Your task to perform on an android device: clear history in the chrome app Image 0: 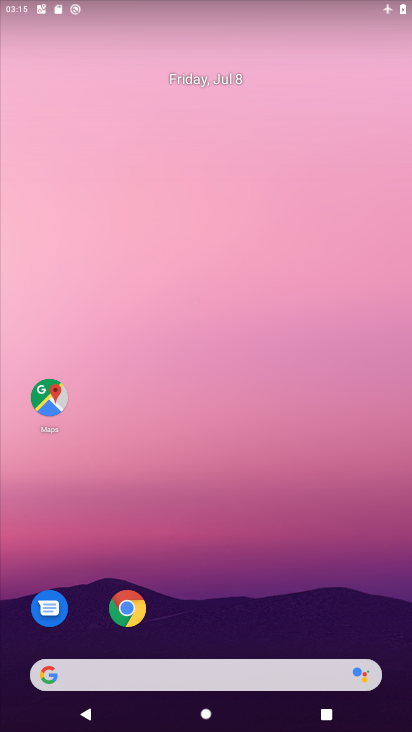
Step 0: drag from (232, 586) to (217, 339)
Your task to perform on an android device: clear history in the chrome app Image 1: 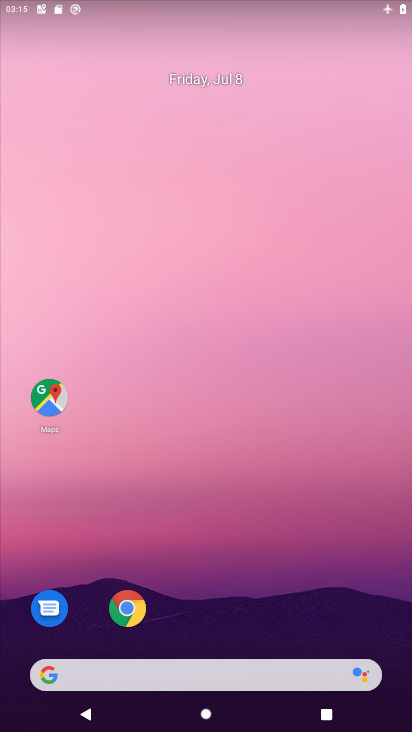
Step 1: drag from (271, 667) to (247, 430)
Your task to perform on an android device: clear history in the chrome app Image 2: 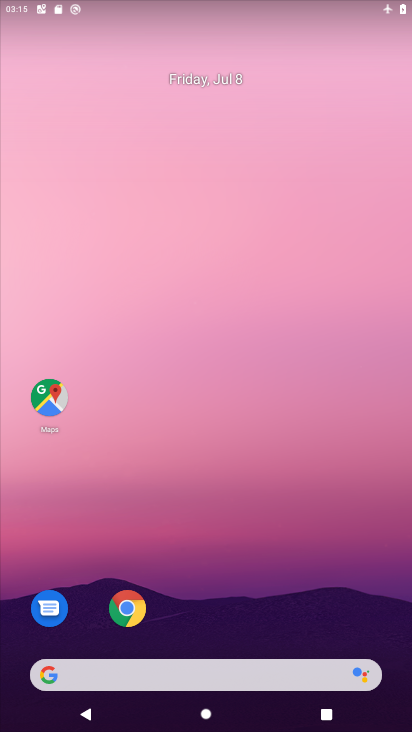
Step 2: drag from (225, 663) to (223, 402)
Your task to perform on an android device: clear history in the chrome app Image 3: 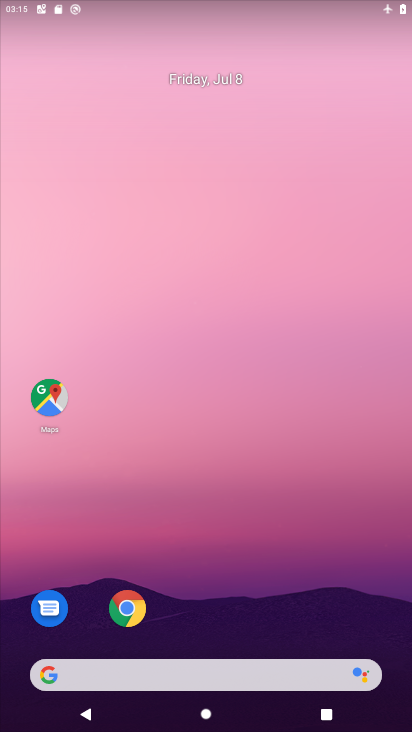
Step 3: drag from (195, 654) to (190, 255)
Your task to perform on an android device: clear history in the chrome app Image 4: 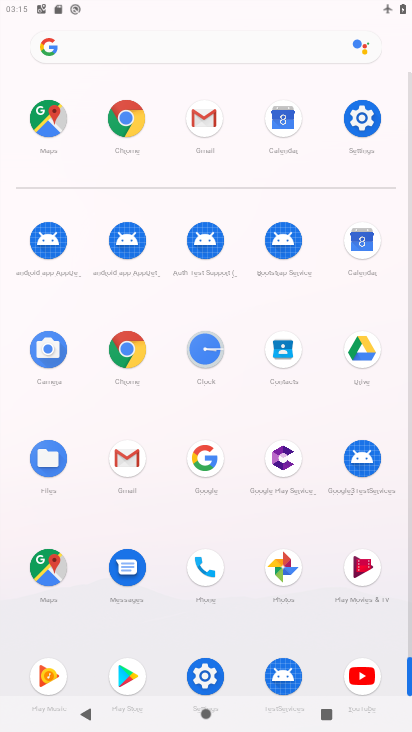
Step 4: click (118, 111)
Your task to perform on an android device: clear history in the chrome app Image 5: 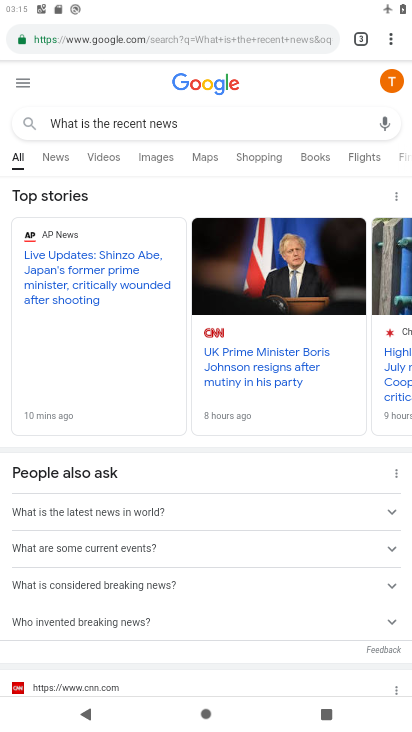
Step 5: click (392, 31)
Your task to perform on an android device: clear history in the chrome app Image 6: 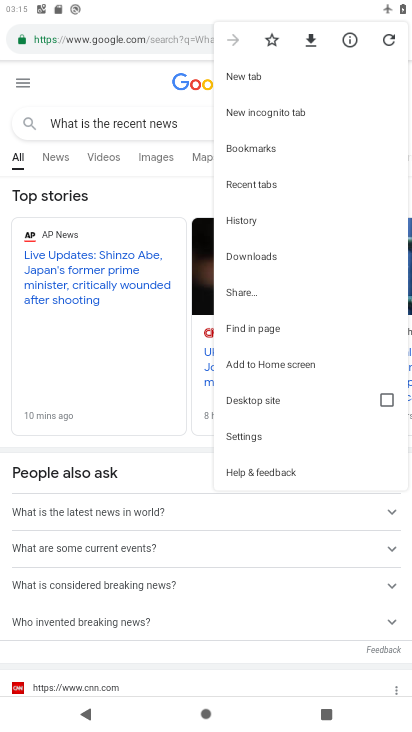
Step 6: click (255, 230)
Your task to perform on an android device: clear history in the chrome app Image 7: 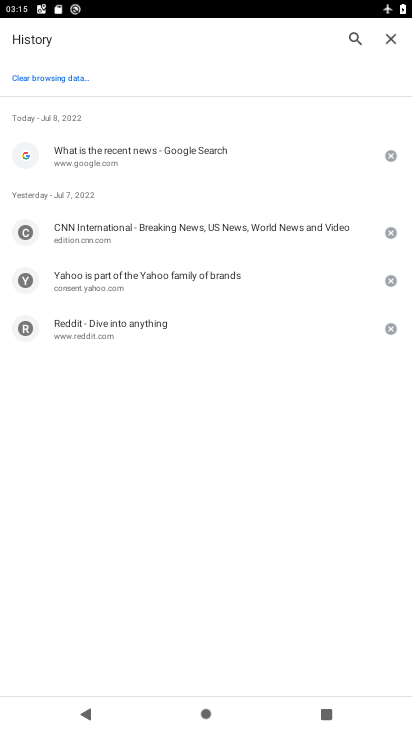
Step 7: click (44, 77)
Your task to perform on an android device: clear history in the chrome app Image 8: 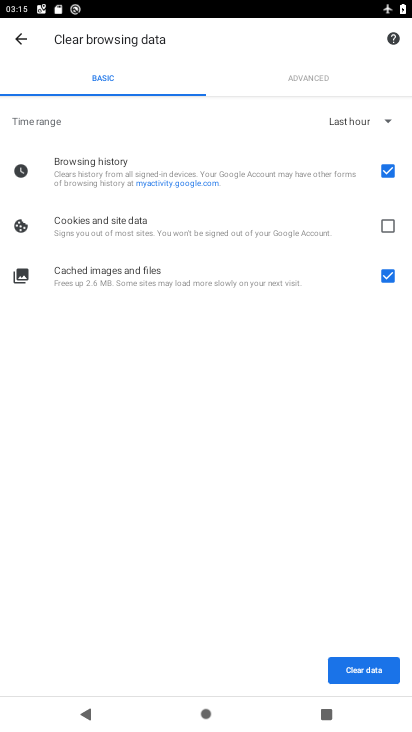
Step 8: click (355, 674)
Your task to perform on an android device: clear history in the chrome app Image 9: 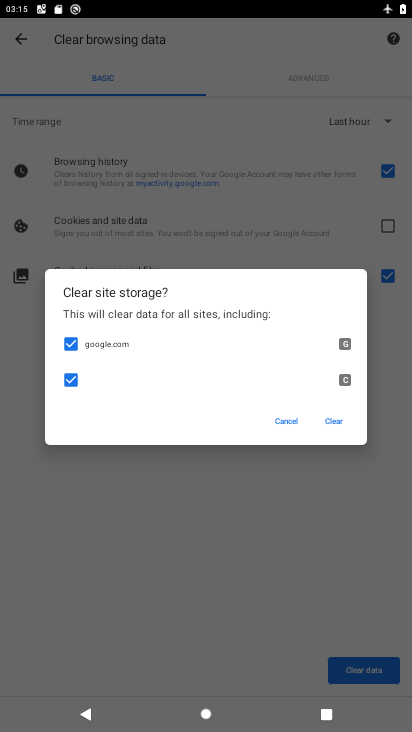
Step 9: click (348, 415)
Your task to perform on an android device: clear history in the chrome app Image 10: 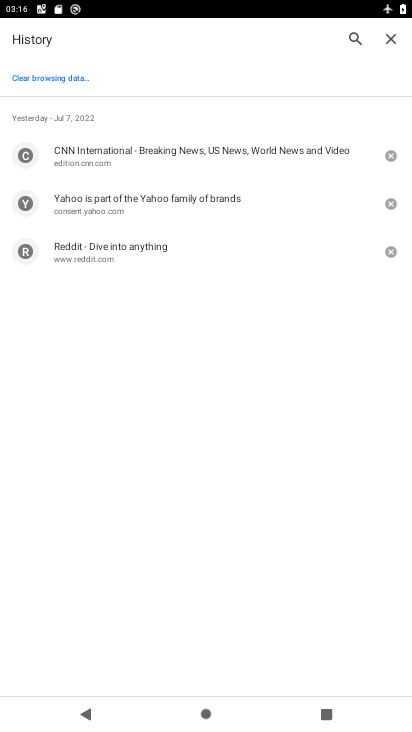
Step 10: click (43, 81)
Your task to perform on an android device: clear history in the chrome app Image 11: 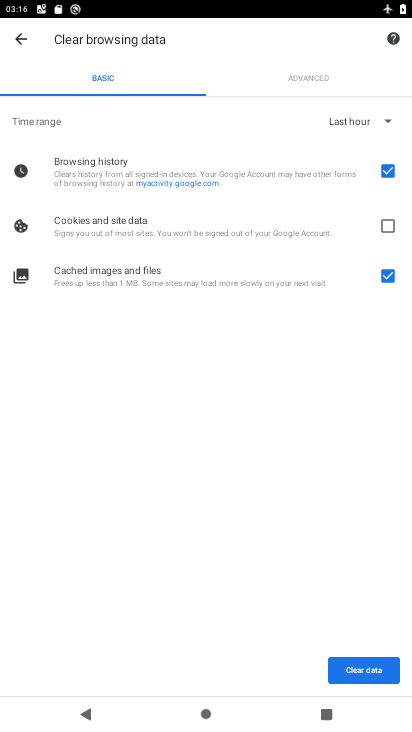
Step 11: click (347, 673)
Your task to perform on an android device: clear history in the chrome app Image 12: 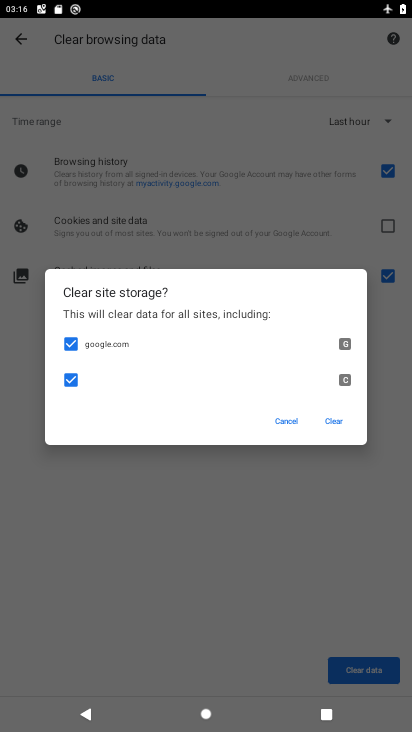
Step 12: click (331, 418)
Your task to perform on an android device: clear history in the chrome app Image 13: 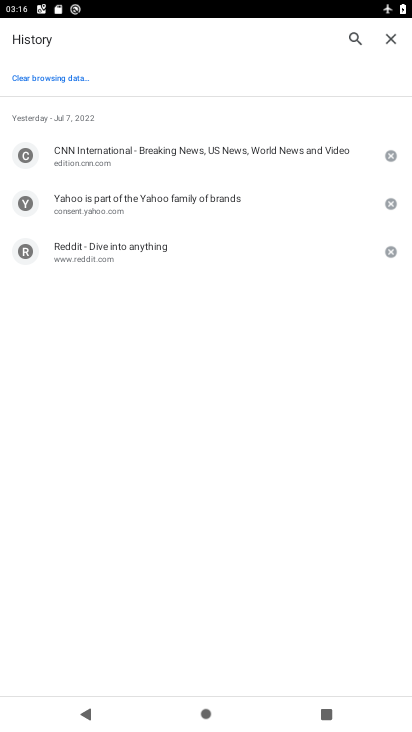
Step 13: task complete